Your task to perform on an android device: Open location settings Image 0: 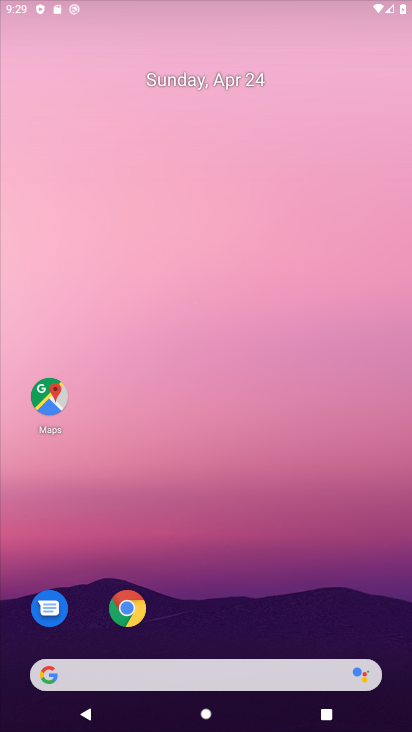
Step 0: drag from (247, 690) to (186, 131)
Your task to perform on an android device: Open location settings Image 1: 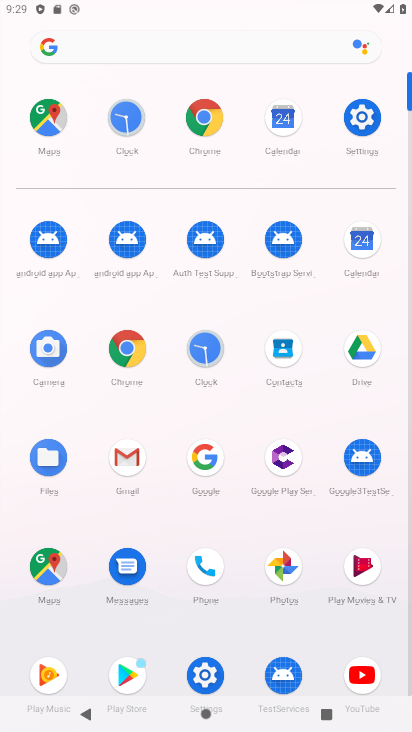
Step 1: click (357, 124)
Your task to perform on an android device: Open location settings Image 2: 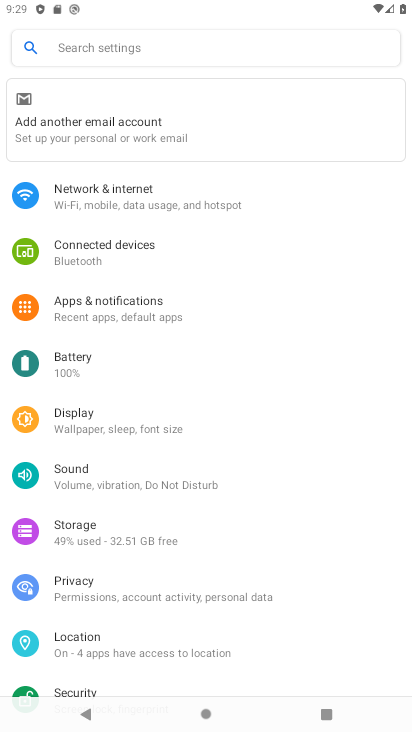
Step 2: click (140, 465)
Your task to perform on an android device: Open location settings Image 3: 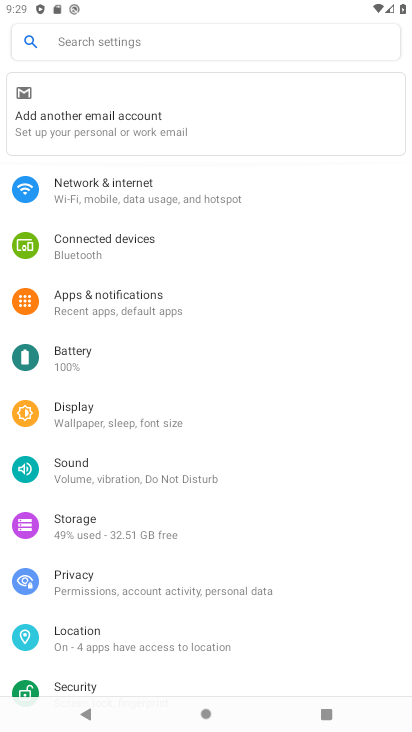
Step 3: click (128, 50)
Your task to perform on an android device: Open location settings Image 4: 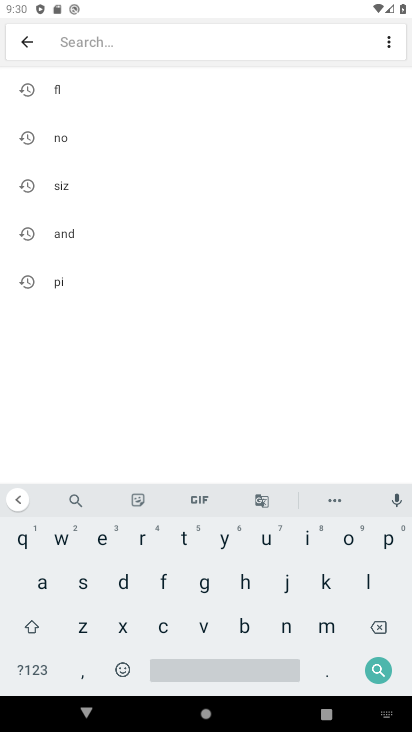
Step 4: click (363, 571)
Your task to perform on an android device: Open location settings Image 5: 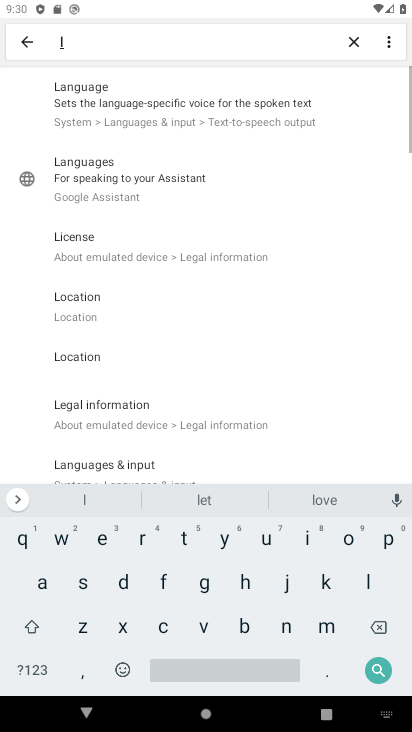
Step 5: click (349, 543)
Your task to perform on an android device: Open location settings Image 6: 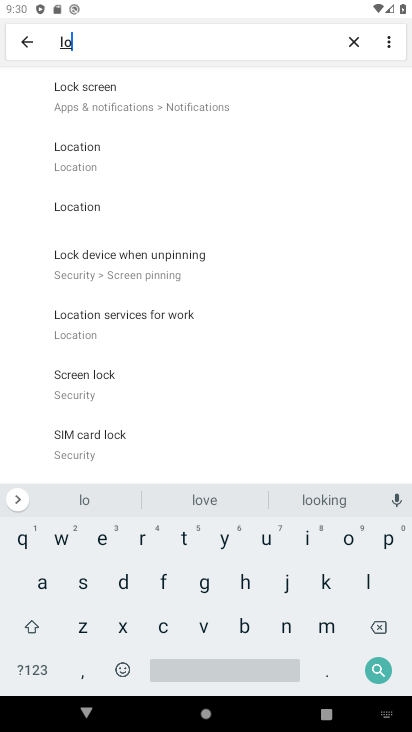
Step 6: click (96, 171)
Your task to perform on an android device: Open location settings Image 7: 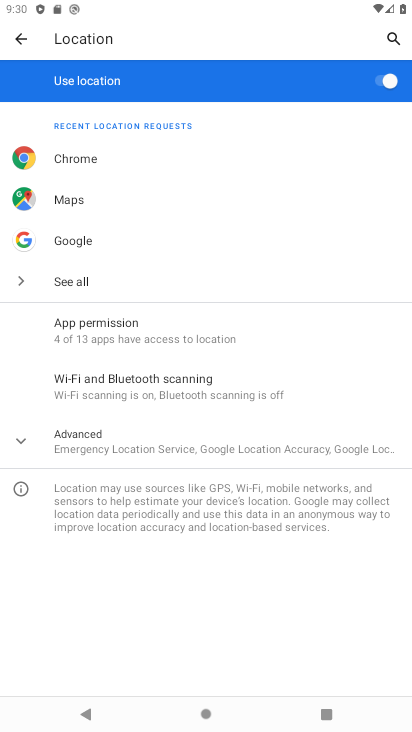
Step 7: click (41, 441)
Your task to perform on an android device: Open location settings Image 8: 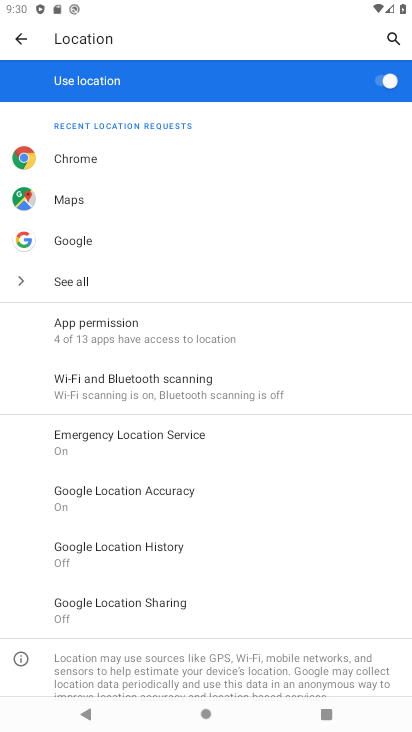
Step 8: task complete